Your task to perform on an android device: turn on sleep mode Image 0: 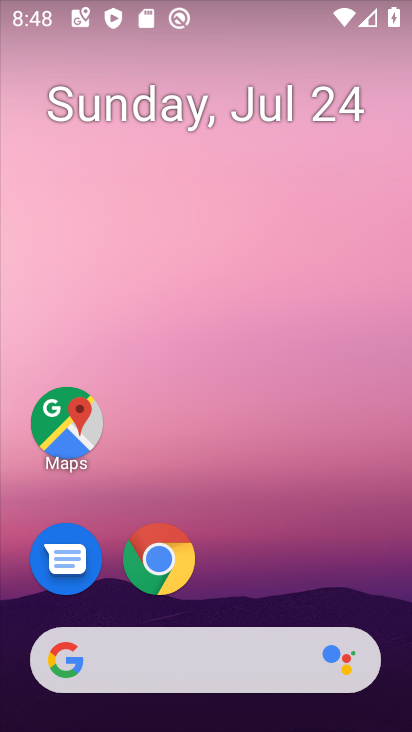
Step 0: drag from (256, 571) to (314, 19)
Your task to perform on an android device: turn on sleep mode Image 1: 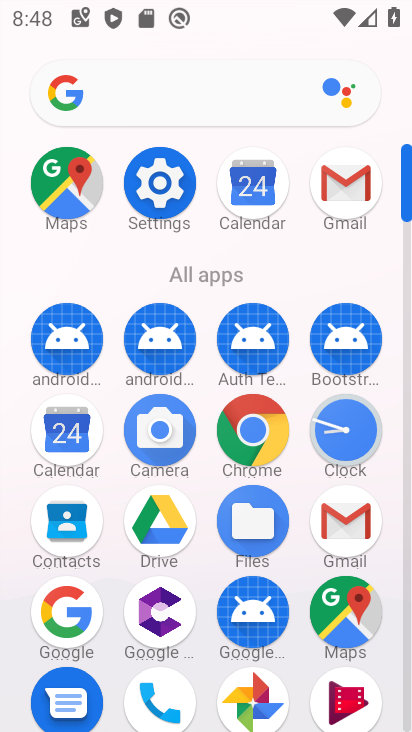
Step 1: click (148, 75)
Your task to perform on an android device: turn on sleep mode Image 2: 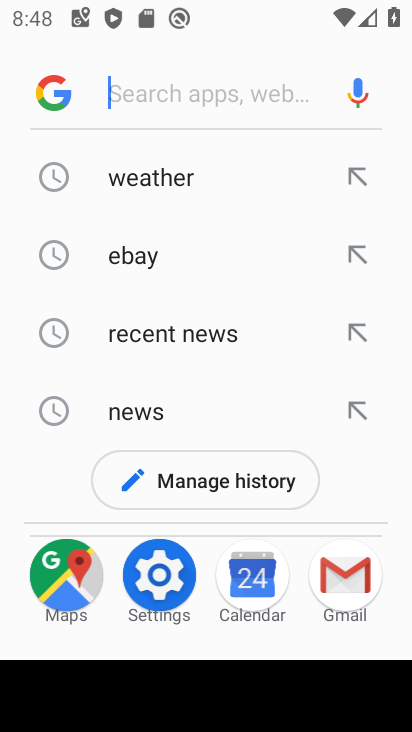
Step 2: press back button
Your task to perform on an android device: turn on sleep mode Image 3: 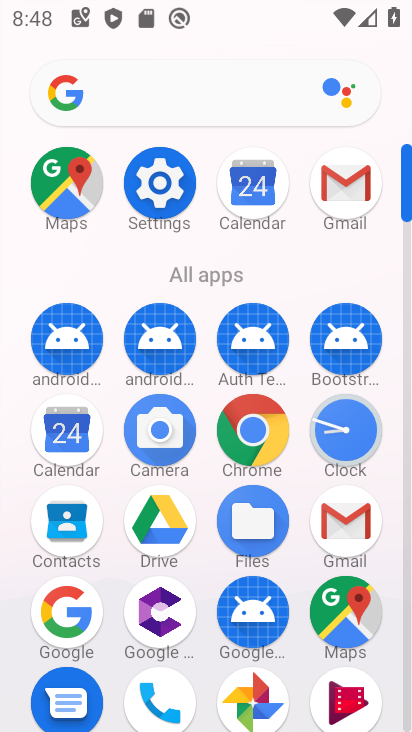
Step 3: click (164, 183)
Your task to perform on an android device: turn on sleep mode Image 4: 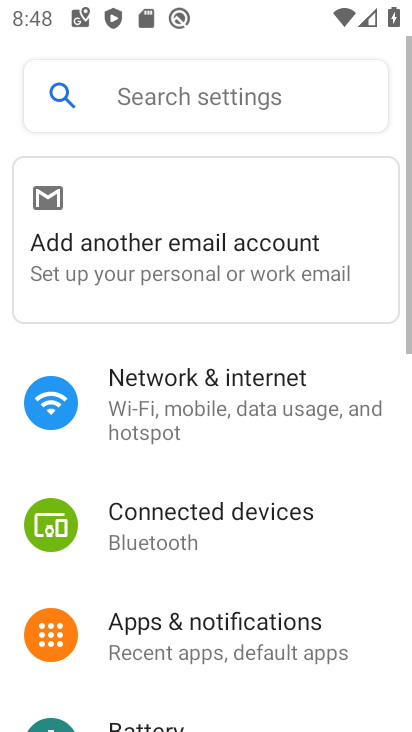
Step 4: click (161, 86)
Your task to perform on an android device: turn on sleep mode Image 5: 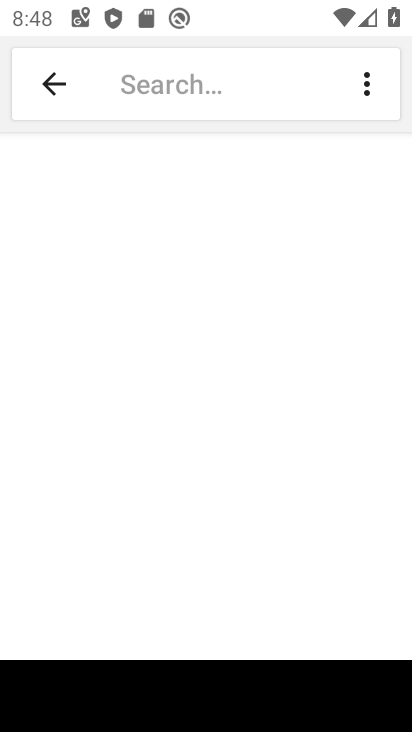
Step 5: type "sleep mode"
Your task to perform on an android device: turn on sleep mode Image 6: 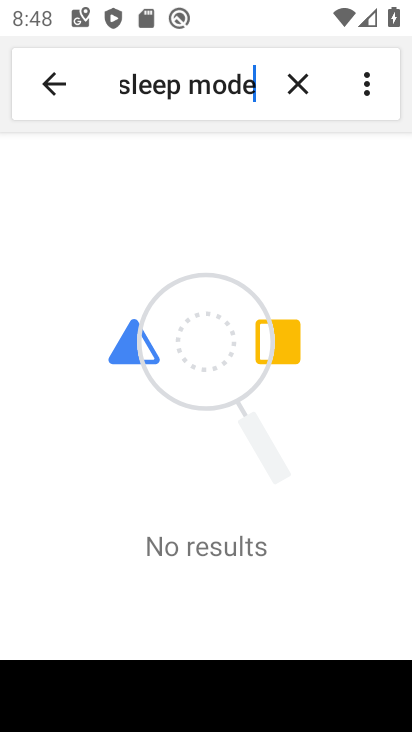
Step 6: task complete